Your task to perform on an android device: toggle wifi Image 0: 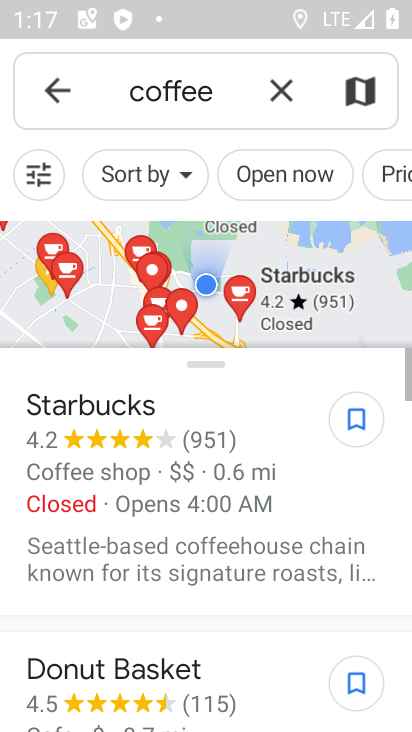
Step 0: press home button
Your task to perform on an android device: toggle wifi Image 1: 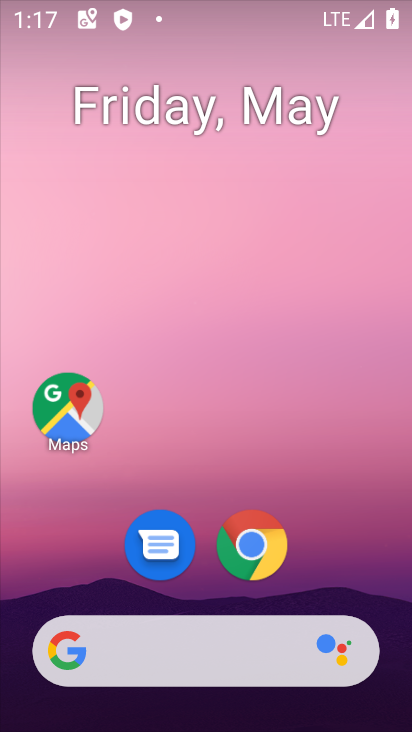
Step 1: drag from (342, 480) to (217, 22)
Your task to perform on an android device: toggle wifi Image 2: 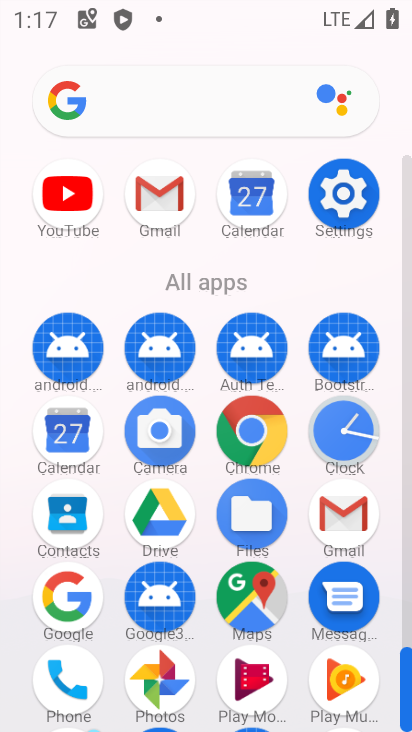
Step 2: click (347, 290)
Your task to perform on an android device: toggle wifi Image 3: 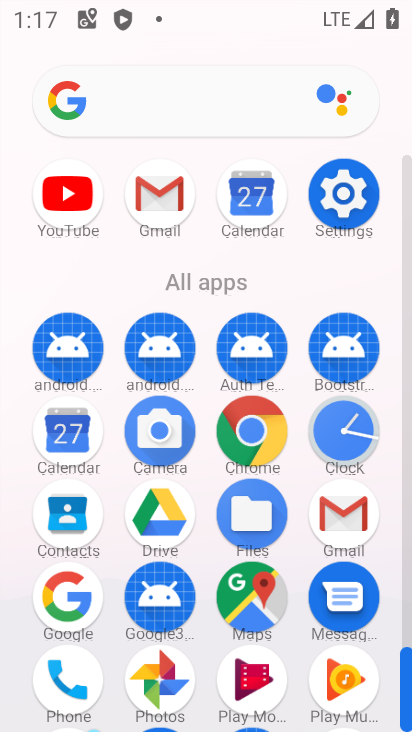
Step 3: click (351, 188)
Your task to perform on an android device: toggle wifi Image 4: 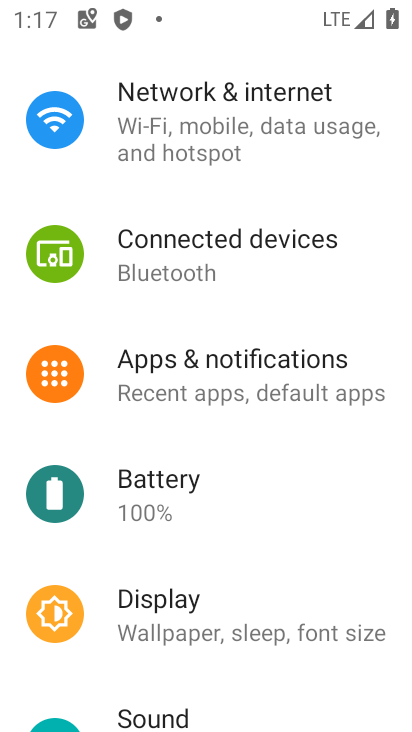
Step 4: click (228, 128)
Your task to perform on an android device: toggle wifi Image 5: 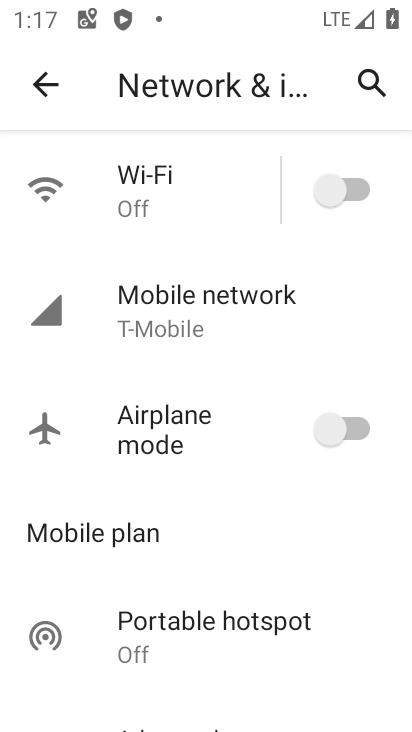
Step 5: click (332, 193)
Your task to perform on an android device: toggle wifi Image 6: 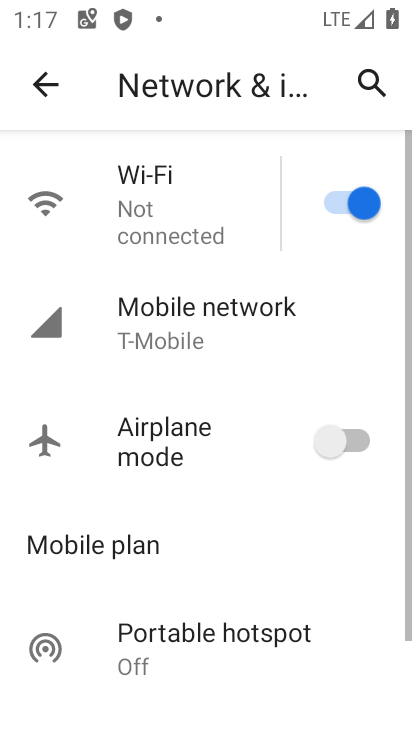
Step 6: task complete